Your task to perform on an android device: turn off location Image 0: 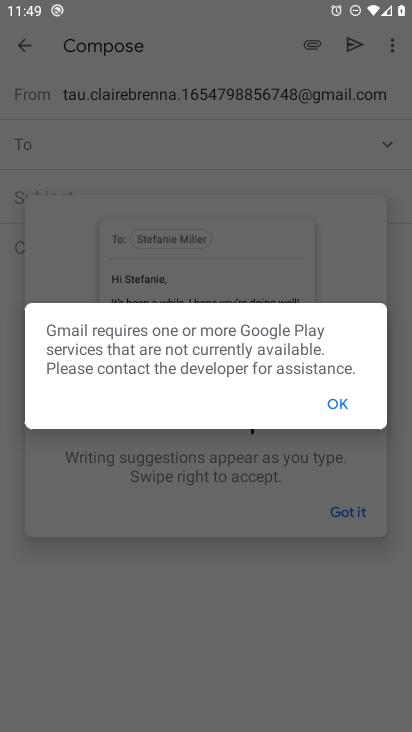
Step 0: press home button
Your task to perform on an android device: turn off location Image 1: 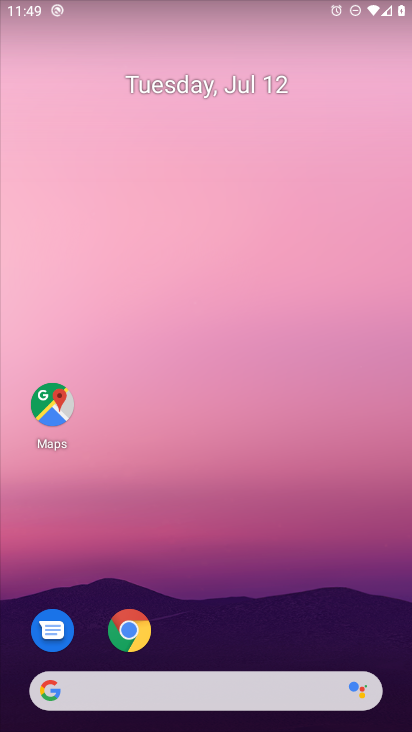
Step 1: drag from (299, 510) to (313, 280)
Your task to perform on an android device: turn off location Image 2: 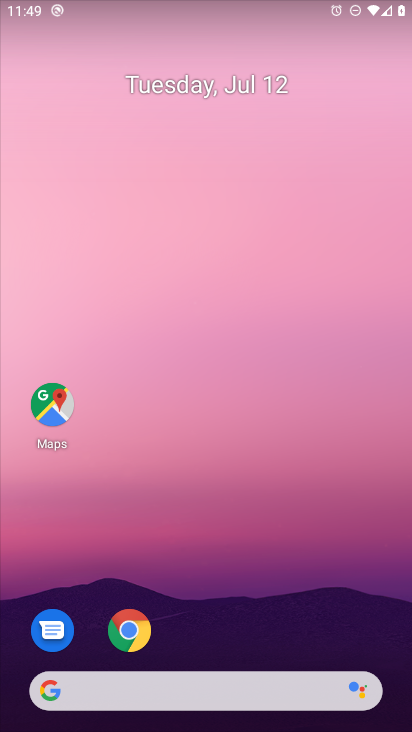
Step 2: drag from (250, 576) to (305, 12)
Your task to perform on an android device: turn off location Image 3: 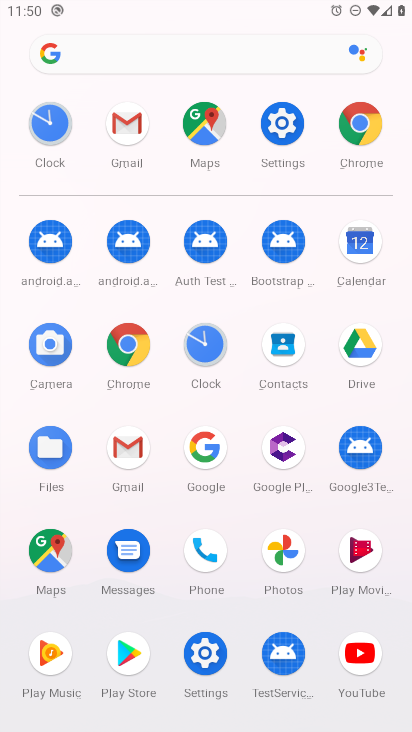
Step 3: click (275, 109)
Your task to perform on an android device: turn off location Image 4: 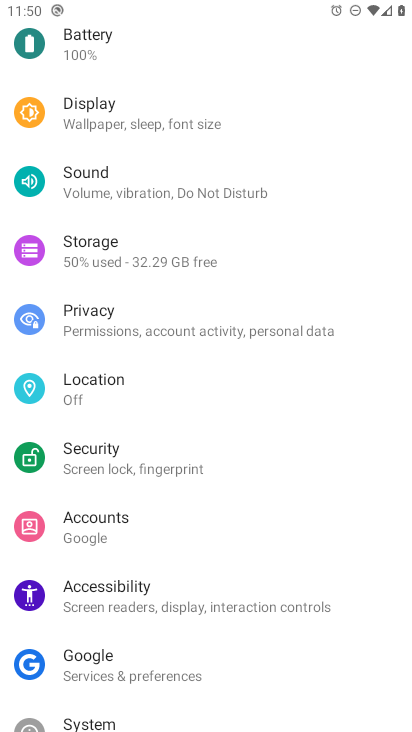
Step 4: click (99, 379)
Your task to perform on an android device: turn off location Image 5: 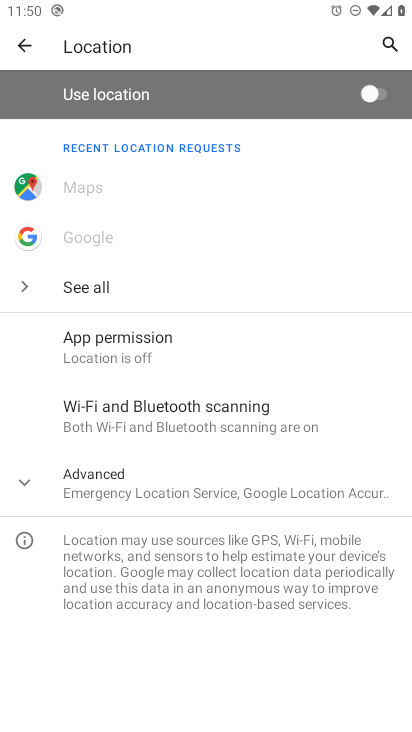
Step 5: task complete